Your task to perform on an android device: Open privacy settings Image 0: 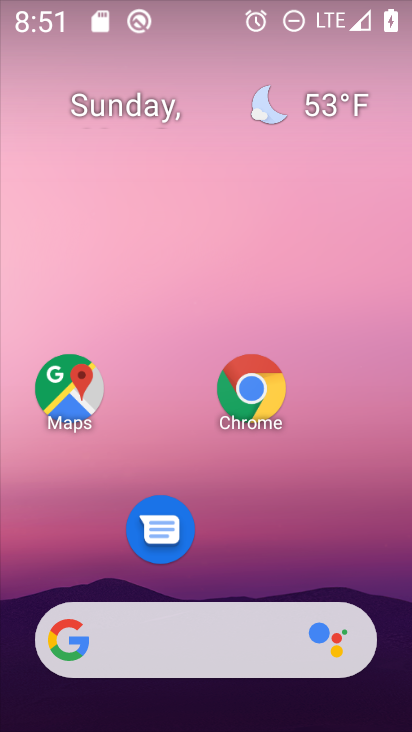
Step 0: drag from (269, 540) to (325, 36)
Your task to perform on an android device: Open privacy settings Image 1: 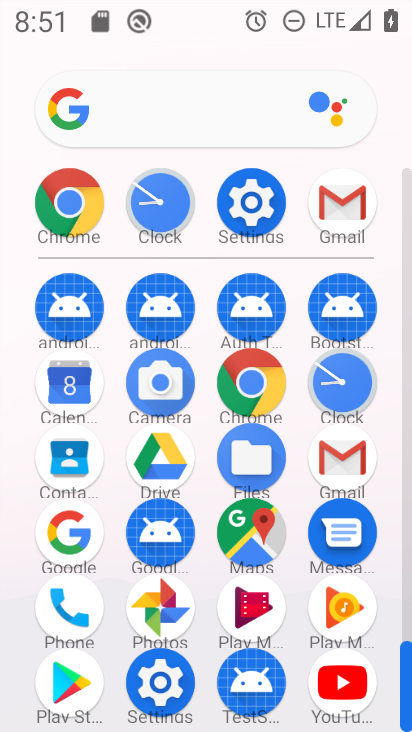
Step 1: click (246, 212)
Your task to perform on an android device: Open privacy settings Image 2: 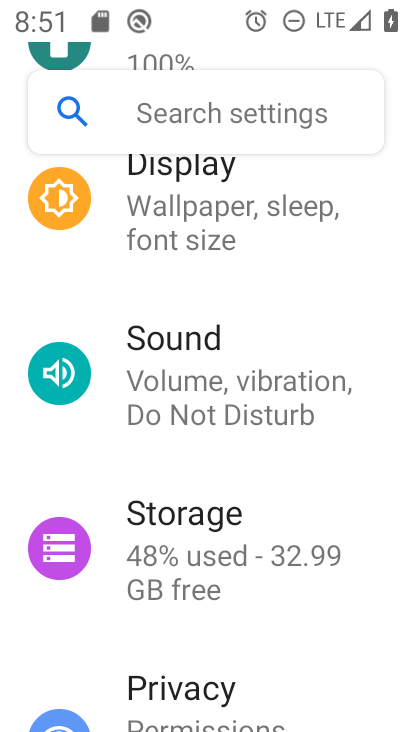
Step 2: click (207, 678)
Your task to perform on an android device: Open privacy settings Image 3: 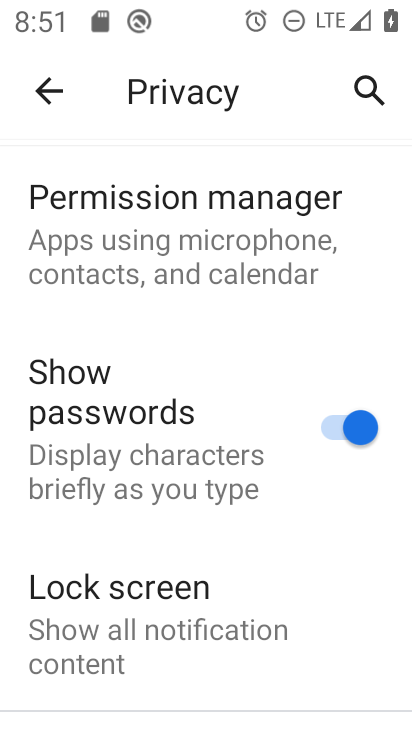
Step 3: task complete